Your task to perform on an android device: Open calendar and show me the first week of next month Image 0: 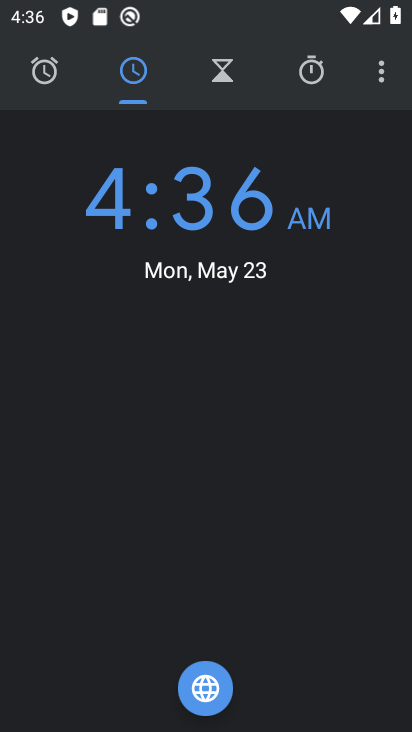
Step 0: press home button
Your task to perform on an android device: Open calendar and show me the first week of next month Image 1: 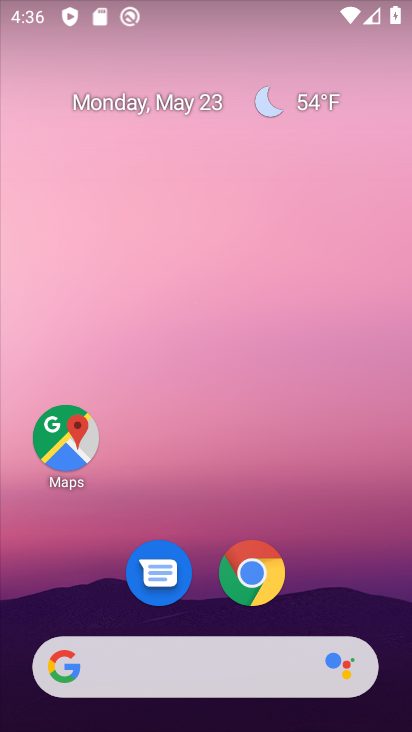
Step 1: drag from (223, 723) to (258, 209)
Your task to perform on an android device: Open calendar and show me the first week of next month Image 2: 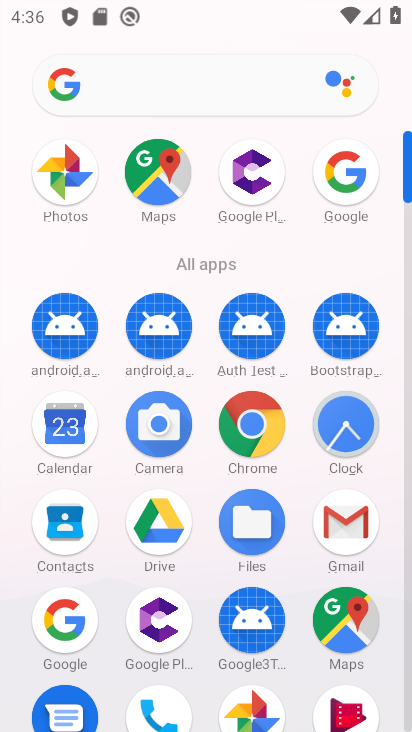
Step 2: click (59, 427)
Your task to perform on an android device: Open calendar and show me the first week of next month Image 3: 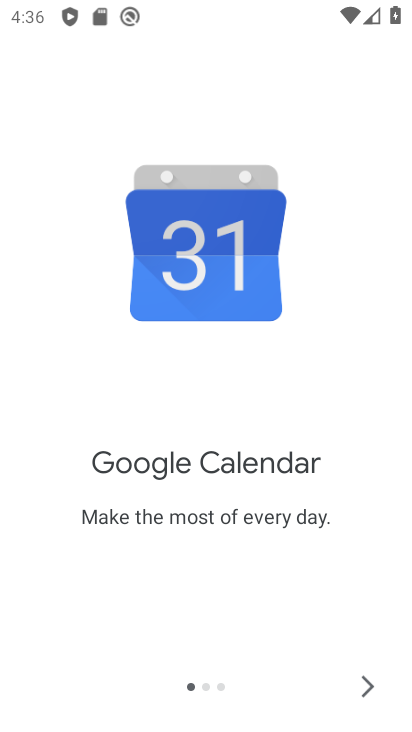
Step 3: click (368, 688)
Your task to perform on an android device: Open calendar and show me the first week of next month Image 4: 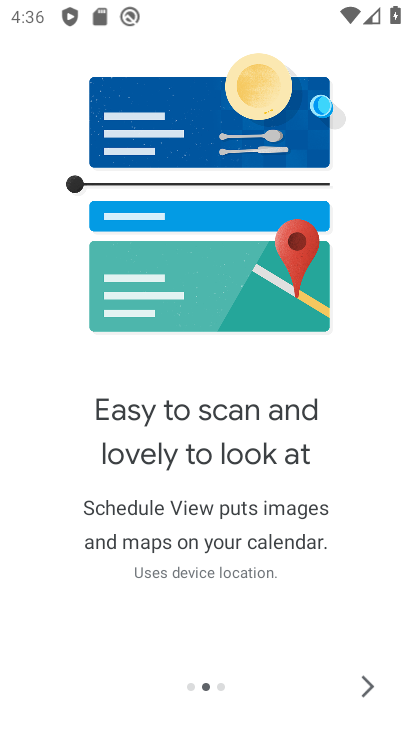
Step 4: click (371, 688)
Your task to perform on an android device: Open calendar and show me the first week of next month Image 5: 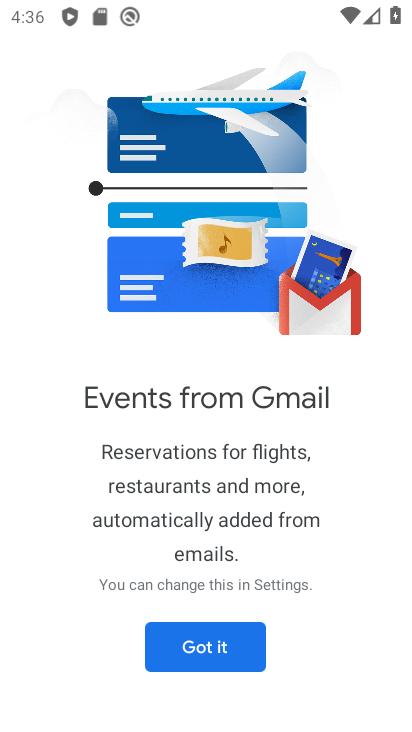
Step 5: click (197, 659)
Your task to perform on an android device: Open calendar and show me the first week of next month Image 6: 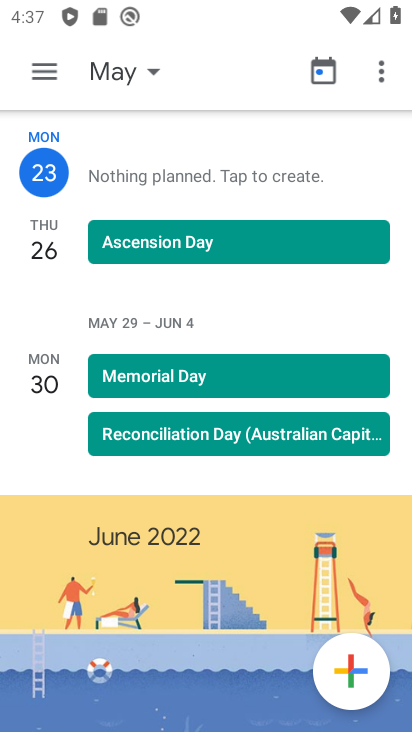
Step 6: click (123, 69)
Your task to perform on an android device: Open calendar and show me the first week of next month Image 7: 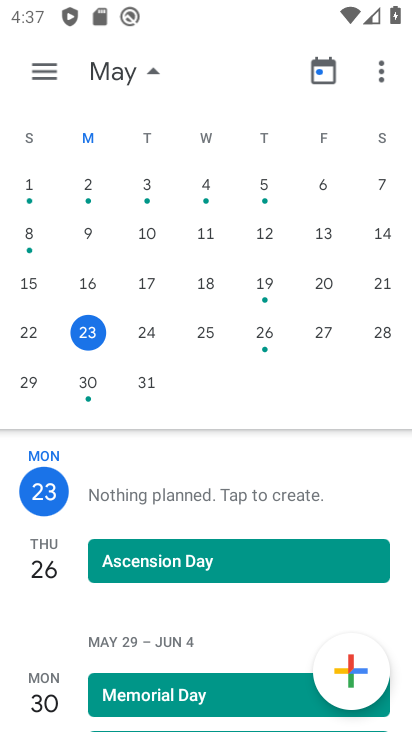
Step 7: drag from (329, 252) to (0, 258)
Your task to perform on an android device: Open calendar and show me the first week of next month Image 8: 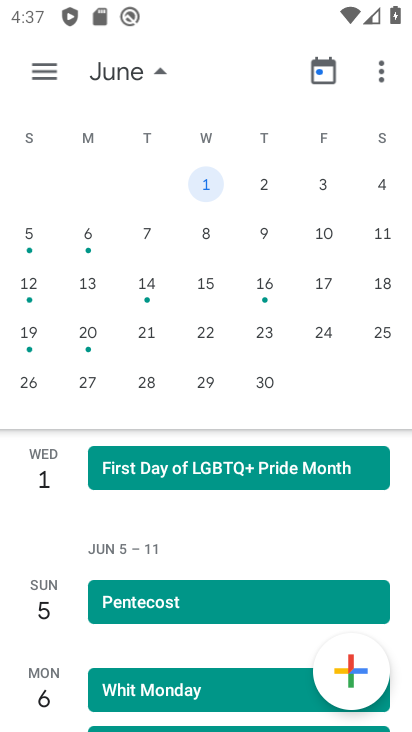
Step 8: click (82, 228)
Your task to perform on an android device: Open calendar and show me the first week of next month Image 9: 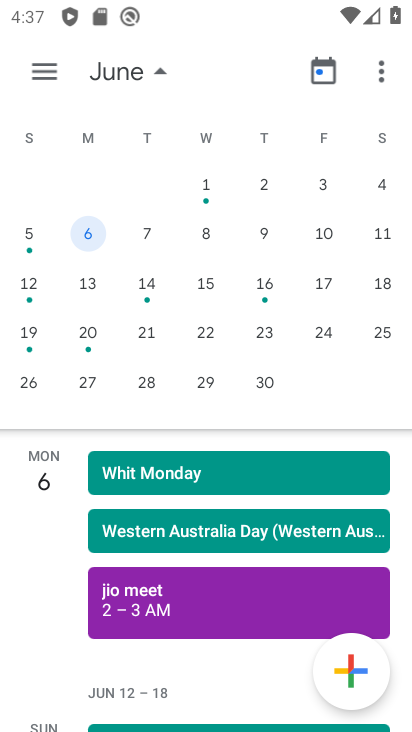
Step 9: task complete